Your task to perform on an android device: add a contact in the contacts app Image 0: 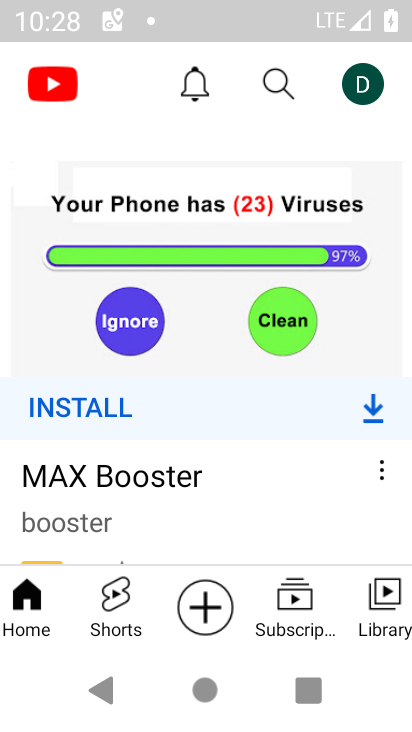
Step 0: press home button
Your task to perform on an android device: add a contact in the contacts app Image 1: 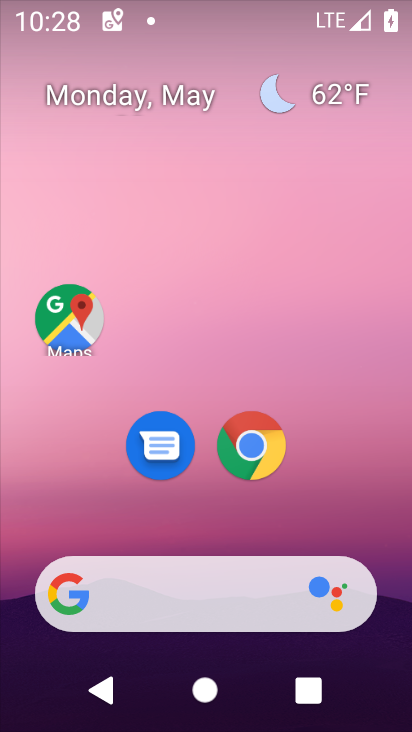
Step 1: drag from (396, 619) to (257, 165)
Your task to perform on an android device: add a contact in the contacts app Image 2: 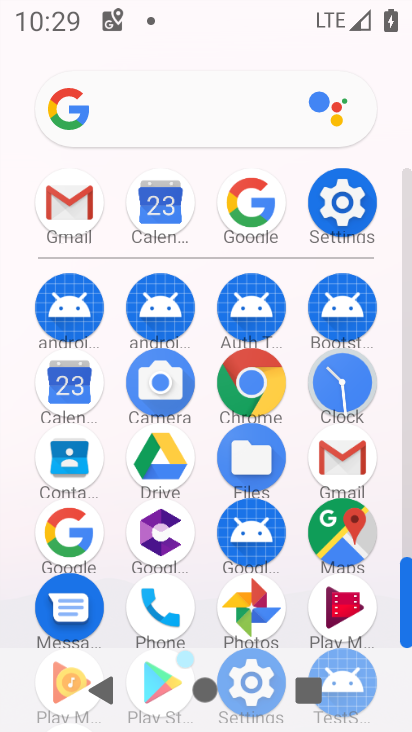
Step 2: click (57, 480)
Your task to perform on an android device: add a contact in the contacts app Image 3: 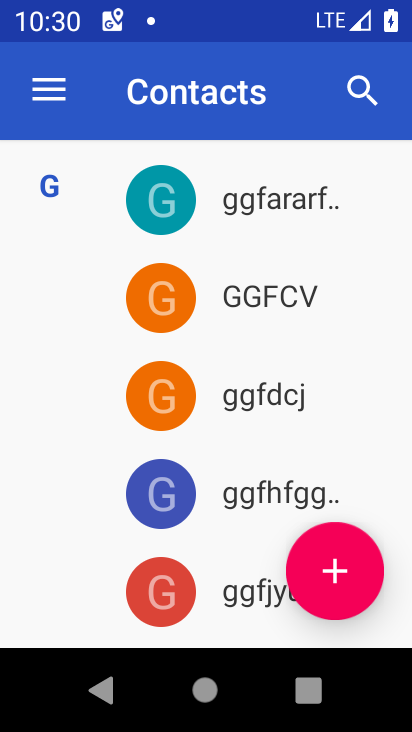
Step 3: click (343, 602)
Your task to perform on an android device: add a contact in the contacts app Image 4: 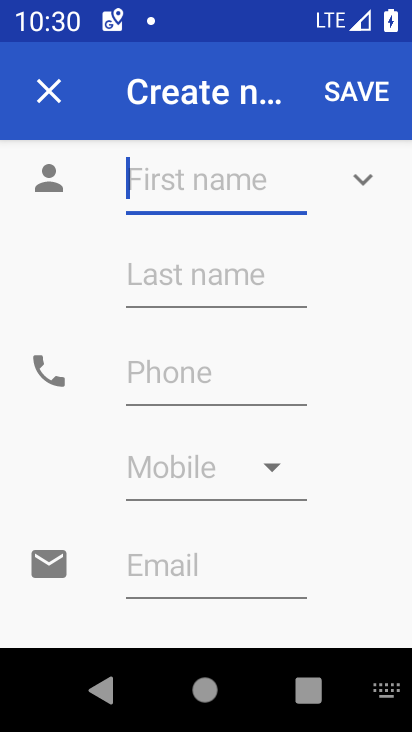
Step 4: type "nitesh"
Your task to perform on an android device: add a contact in the contacts app Image 5: 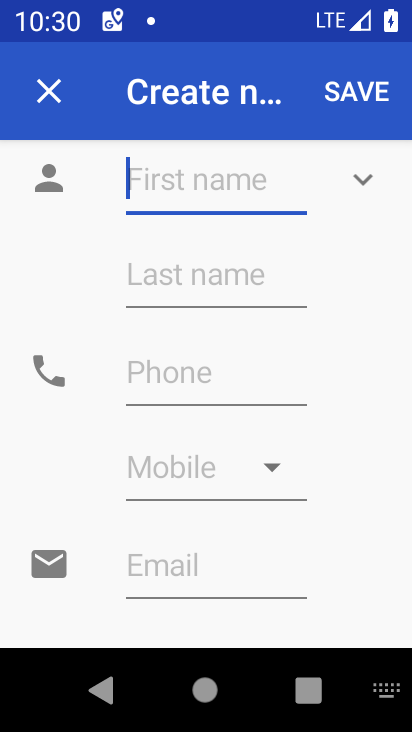
Step 5: click (378, 77)
Your task to perform on an android device: add a contact in the contacts app Image 6: 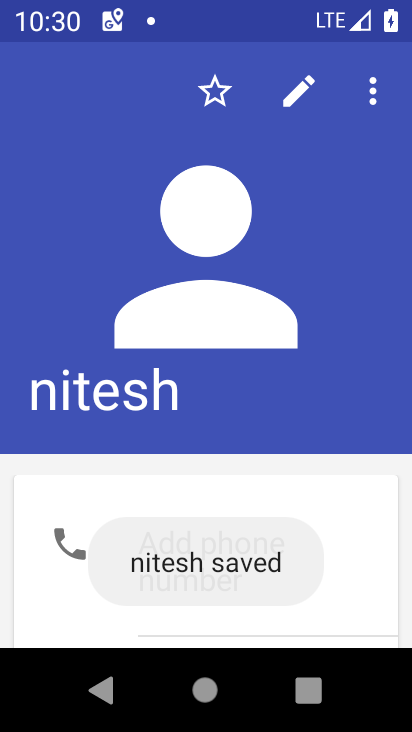
Step 6: task complete